Your task to perform on an android device: check data usage Image 0: 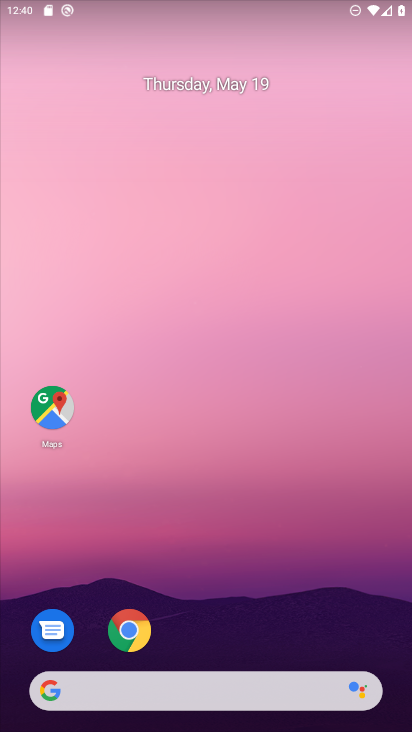
Step 0: click (211, 114)
Your task to perform on an android device: check data usage Image 1: 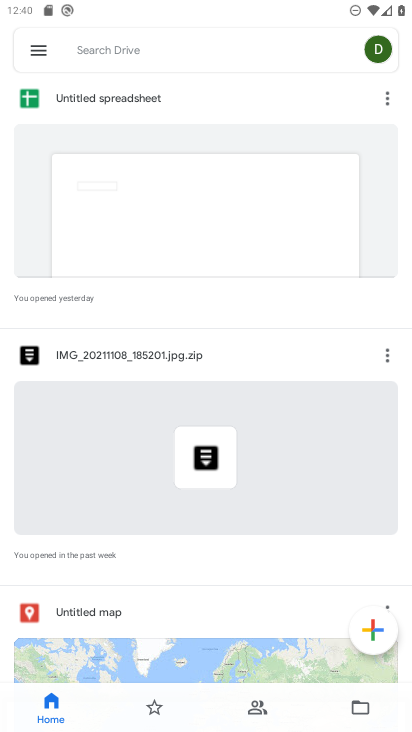
Step 1: press home button
Your task to perform on an android device: check data usage Image 2: 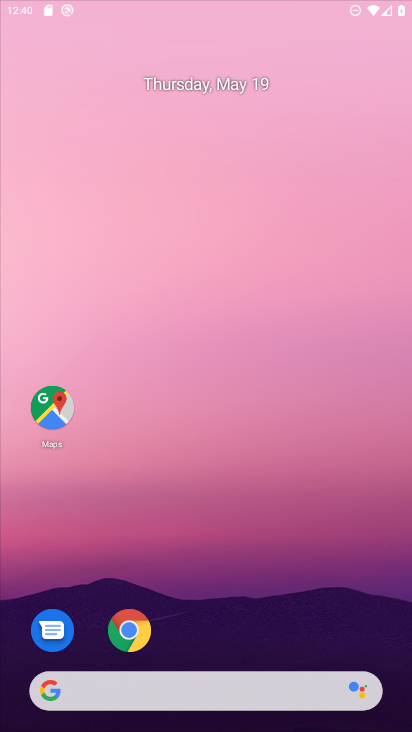
Step 2: drag from (246, 613) to (292, 14)
Your task to perform on an android device: check data usage Image 3: 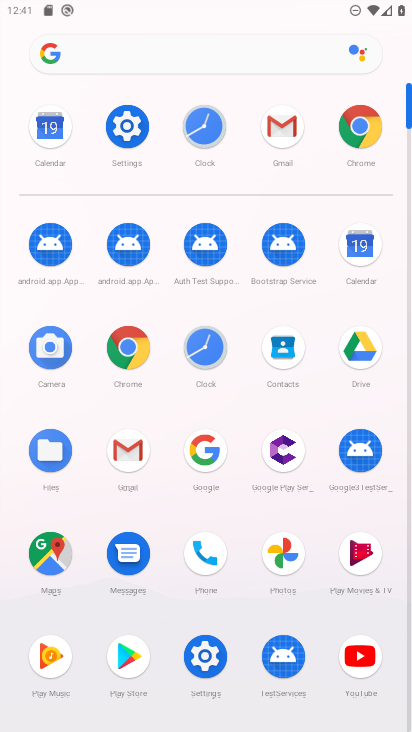
Step 3: click (129, 115)
Your task to perform on an android device: check data usage Image 4: 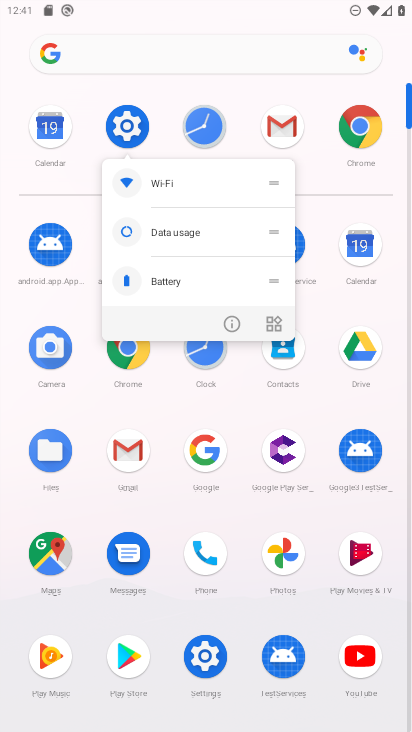
Step 4: click (226, 323)
Your task to perform on an android device: check data usage Image 5: 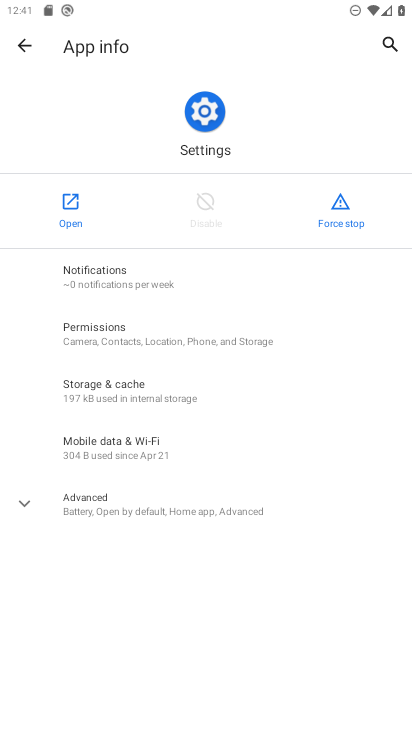
Step 5: click (75, 213)
Your task to perform on an android device: check data usage Image 6: 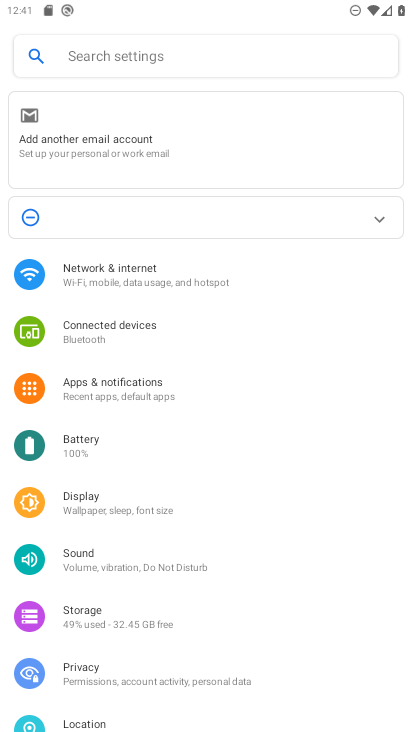
Step 6: click (92, 282)
Your task to perform on an android device: check data usage Image 7: 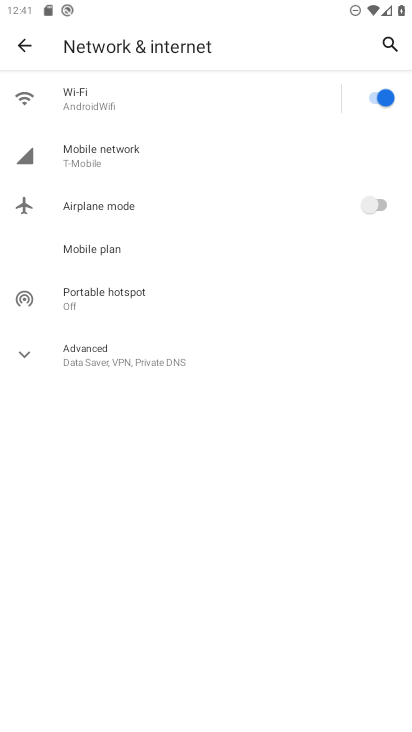
Step 7: click (119, 160)
Your task to perform on an android device: check data usage Image 8: 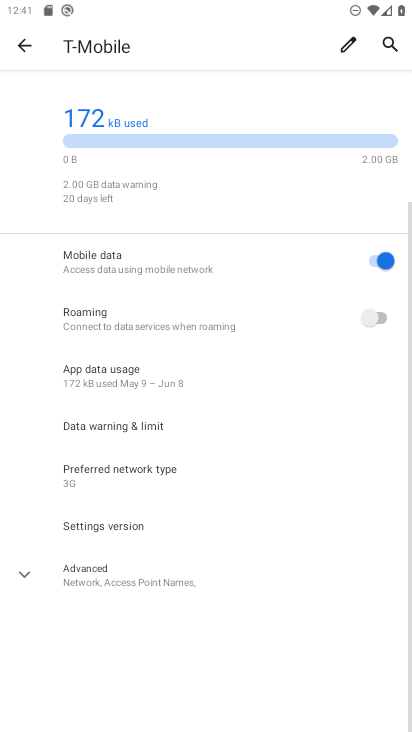
Step 8: task complete